Your task to perform on an android device: What's the weather? Image 0: 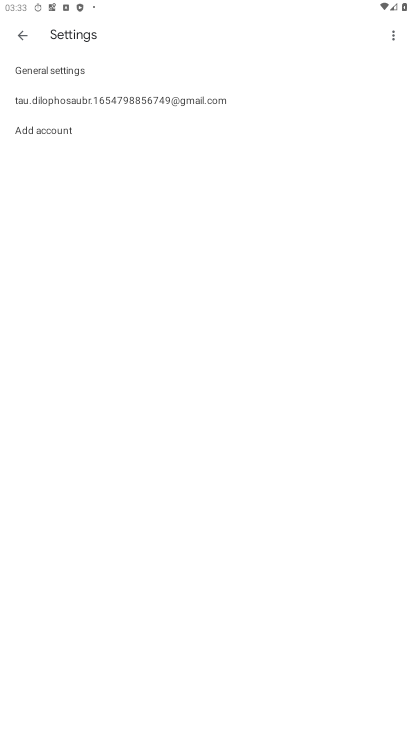
Step 0: press home button
Your task to perform on an android device: What's the weather? Image 1: 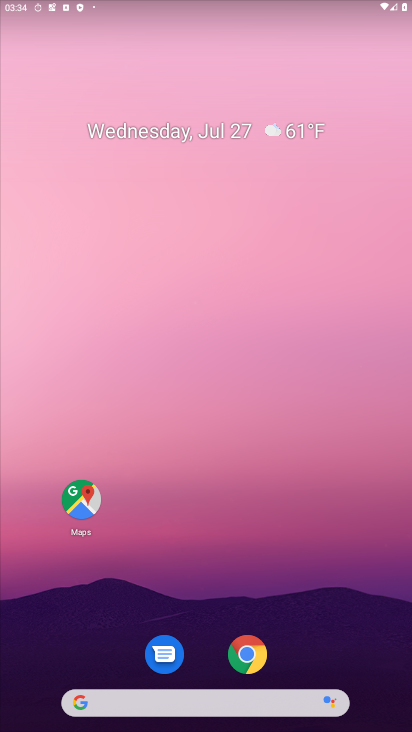
Step 1: drag from (226, 724) to (270, 149)
Your task to perform on an android device: What's the weather? Image 2: 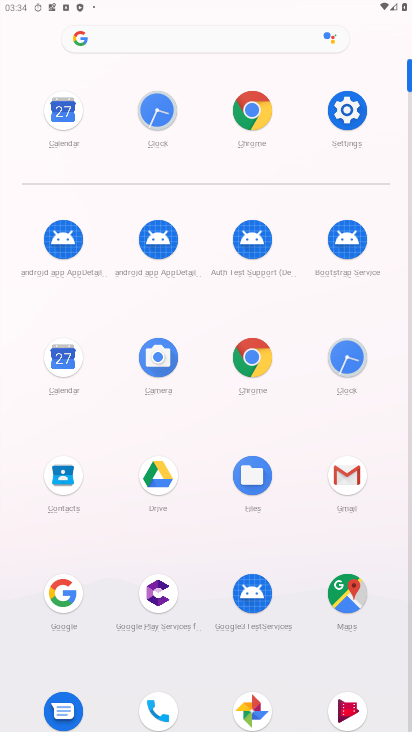
Step 2: click (68, 589)
Your task to perform on an android device: What's the weather? Image 3: 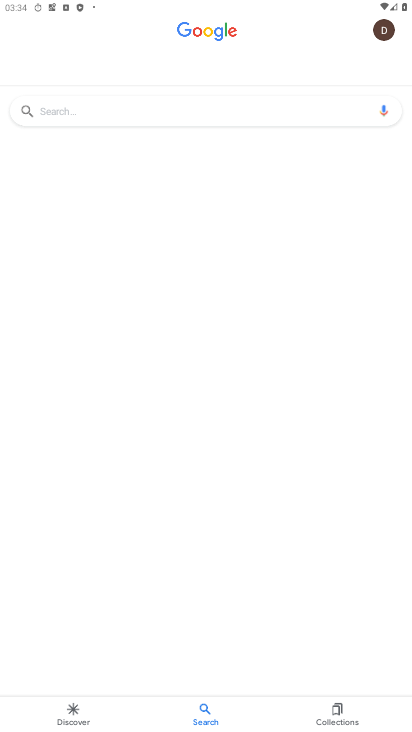
Step 3: click (181, 103)
Your task to perform on an android device: What's the weather? Image 4: 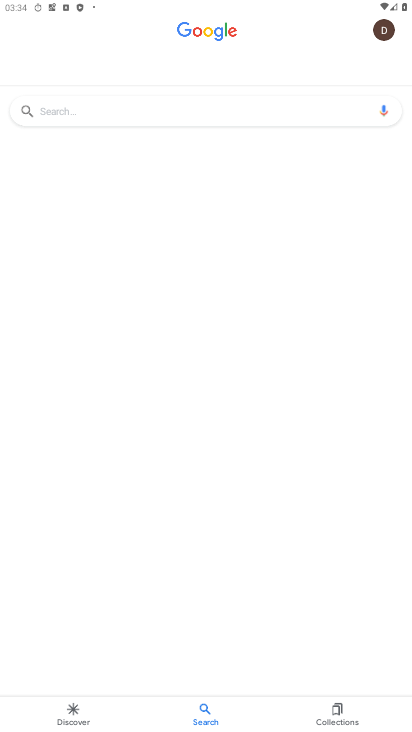
Step 4: click (181, 103)
Your task to perform on an android device: What's the weather? Image 5: 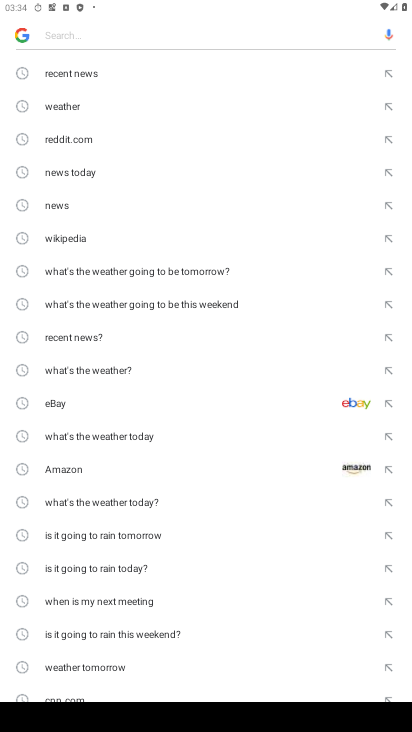
Step 5: click (114, 364)
Your task to perform on an android device: What's the weather? Image 6: 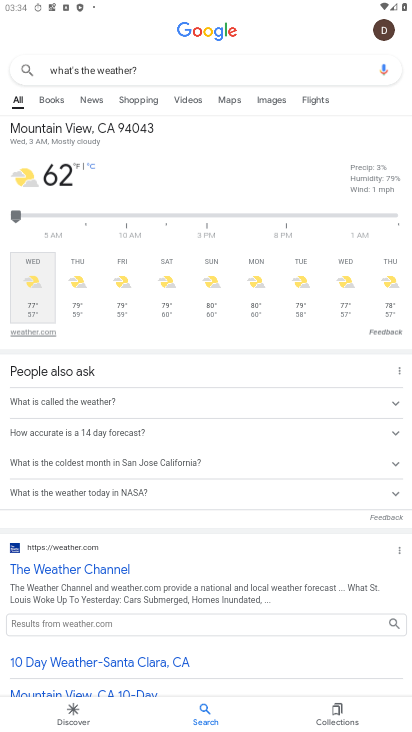
Step 6: task complete